Your task to perform on an android device: turn on wifi Image 0: 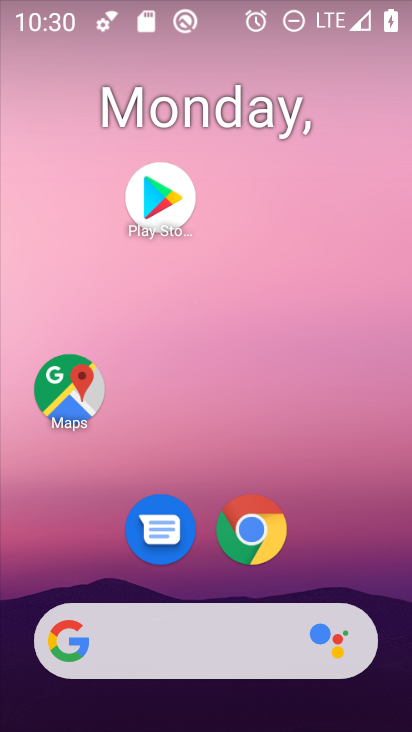
Step 0: drag from (278, 253) to (237, 72)
Your task to perform on an android device: turn on wifi Image 1: 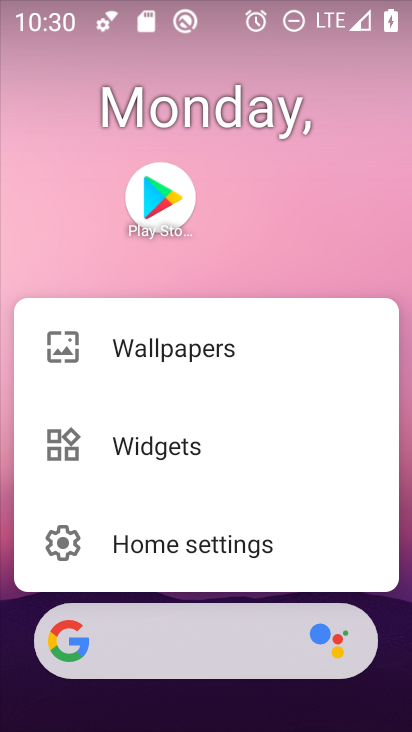
Step 1: drag from (250, 441) to (243, 1)
Your task to perform on an android device: turn on wifi Image 2: 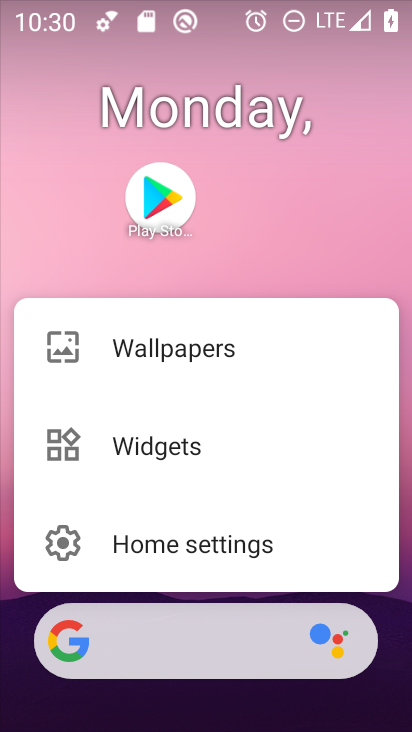
Step 2: click (323, 254)
Your task to perform on an android device: turn on wifi Image 3: 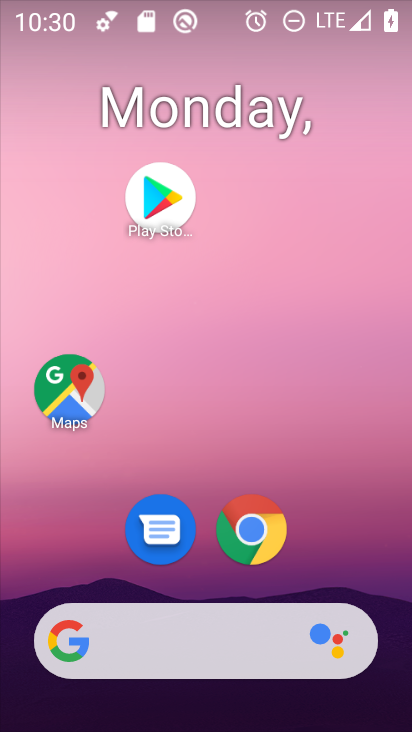
Step 3: drag from (331, 527) to (173, 44)
Your task to perform on an android device: turn on wifi Image 4: 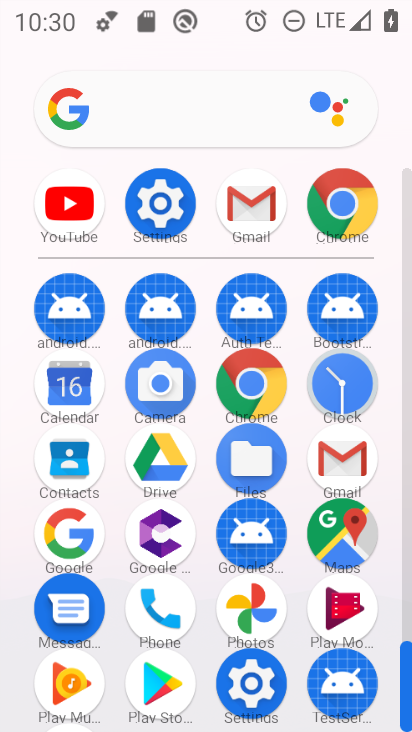
Step 4: click (158, 204)
Your task to perform on an android device: turn on wifi Image 5: 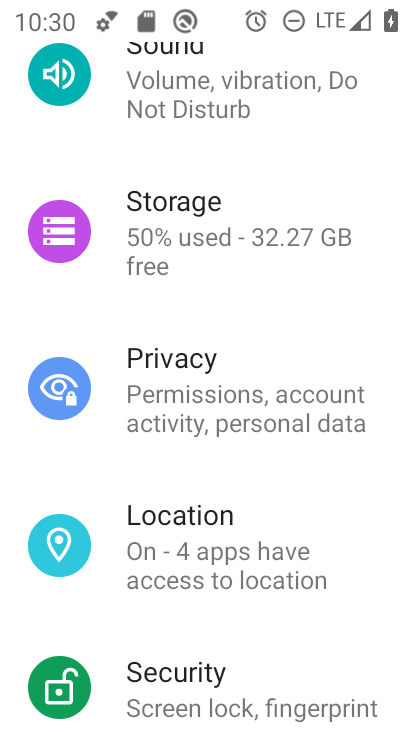
Step 5: drag from (208, 167) to (104, 689)
Your task to perform on an android device: turn on wifi Image 6: 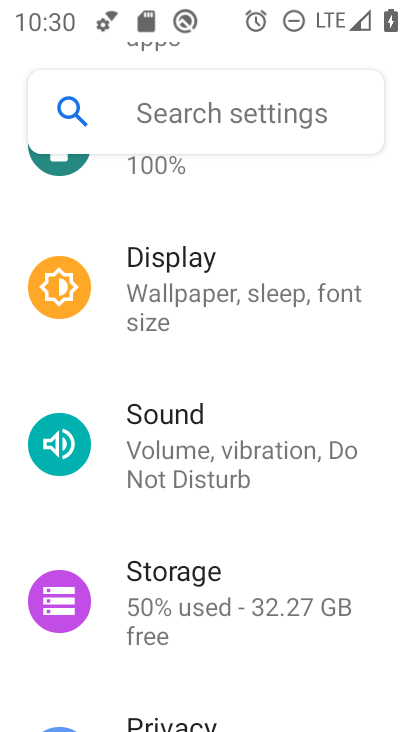
Step 6: drag from (188, 216) to (195, 556)
Your task to perform on an android device: turn on wifi Image 7: 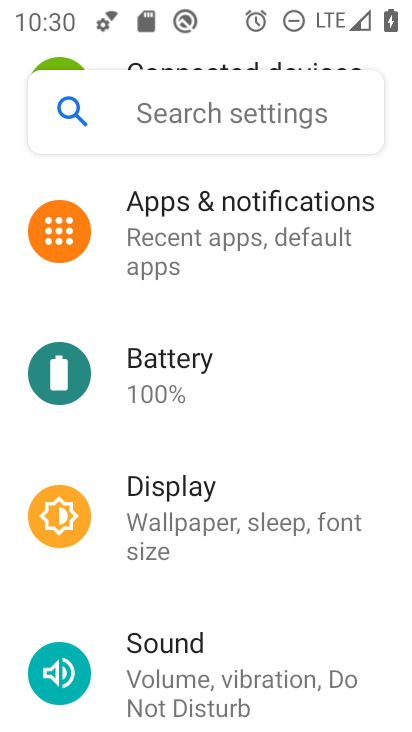
Step 7: drag from (166, 306) to (182, 611)
Your task to perform on an android device: turn on wifi Image 8: 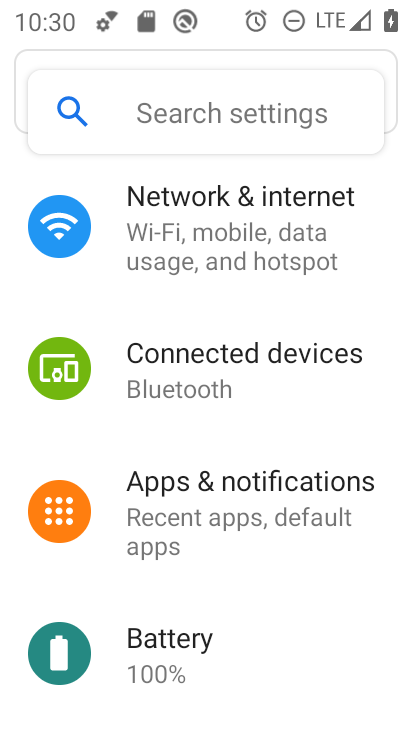
Step 8: drag from (147, 291) to (131, 679)
Your task to perform on an android device: turn on wifi Image 9: 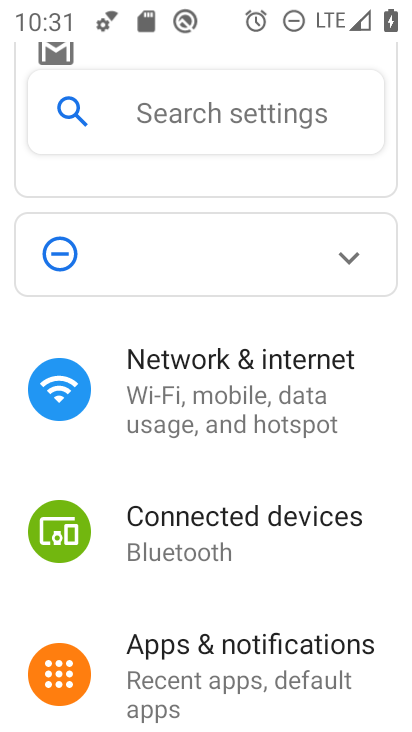
Step 9: click (187, 368)
Your task to perform on an android device: turn on wifi Image 10: 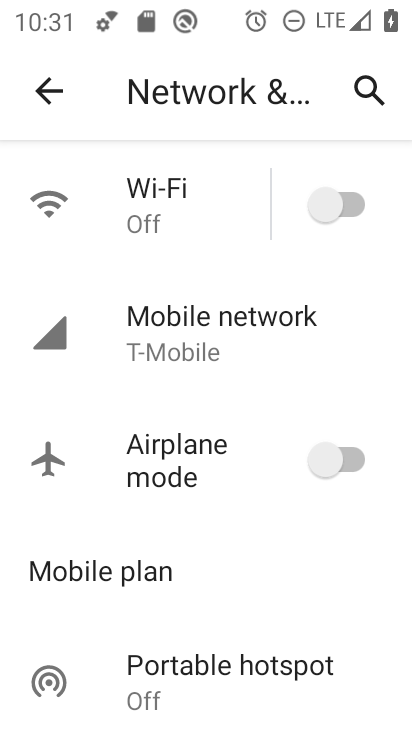
Step 10: click (316, 207)
Your task to perform on an android device: turn on wifi Image 11: 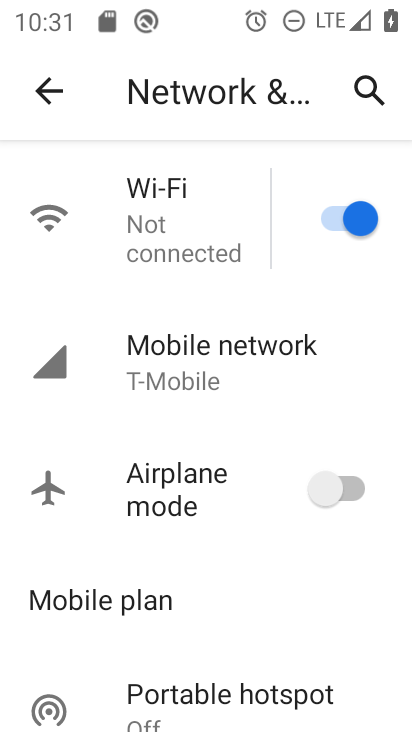
Step 11: task complete